Your task to perform on an android device: move a message to another label in the gmail app Image 0: 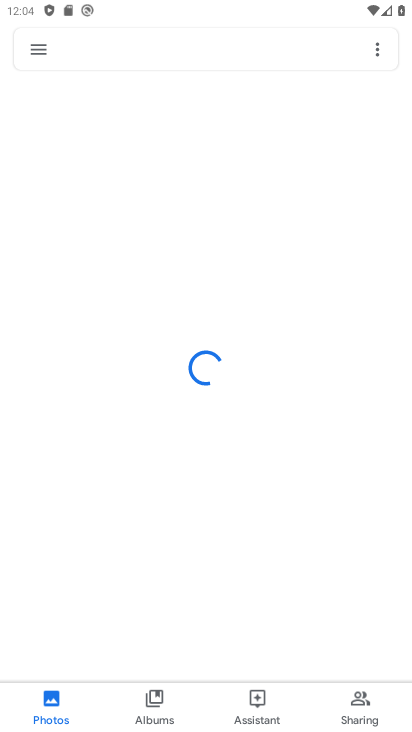
Step 0: press home button
Your task to perform on an android device: move a message to another label in the gmail app Image 1: 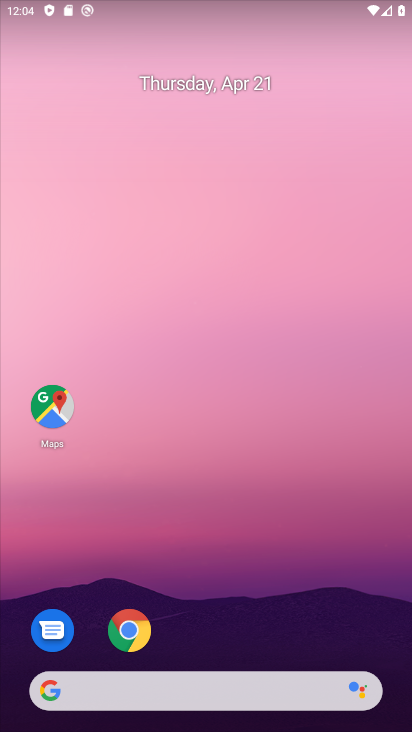
Step 1: drag from (205, 381) to (176, 111)
Your task to perform on an android device: move a message to another label in the gmail app Image 2: 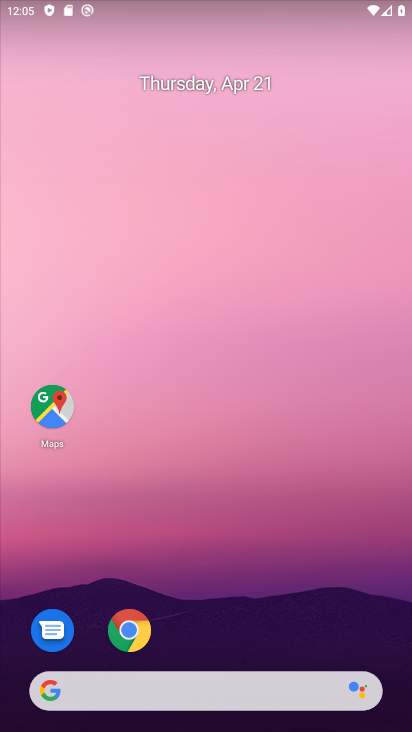
Step 2: click (275, 101)
Your task to perform on an android device: move a message to another label in the gmail app Image 3: 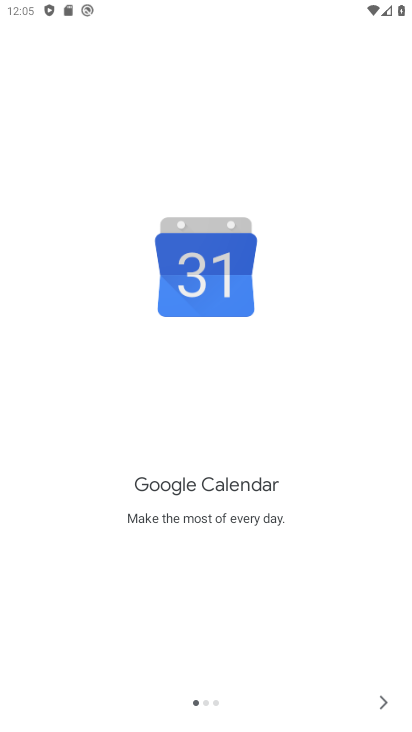
Step 3: click (388, 705)
Your task to perform on an android device: move a message to another label in the gmail app Image 4: 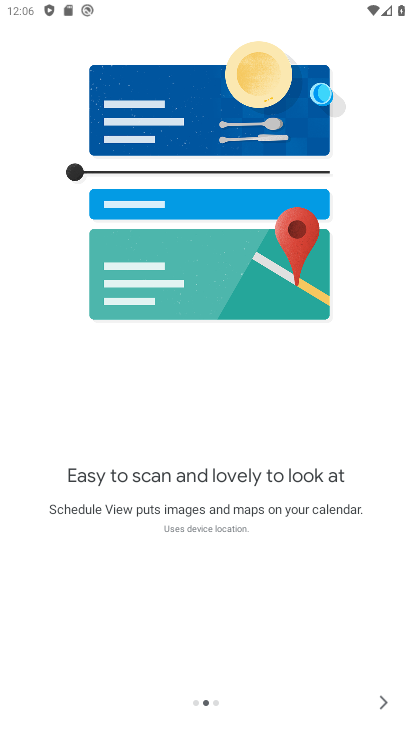
Step 4: click (381, 699)
Your task to perform on an android device: move a message to another label in the gmail app Image 5: 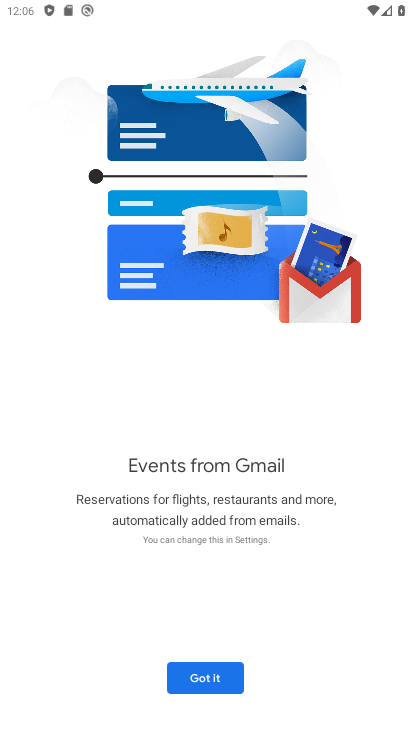
Step 5: click (197, 681)
Your task to perform on an android device: move a message to another label in the gmail app Image 6: 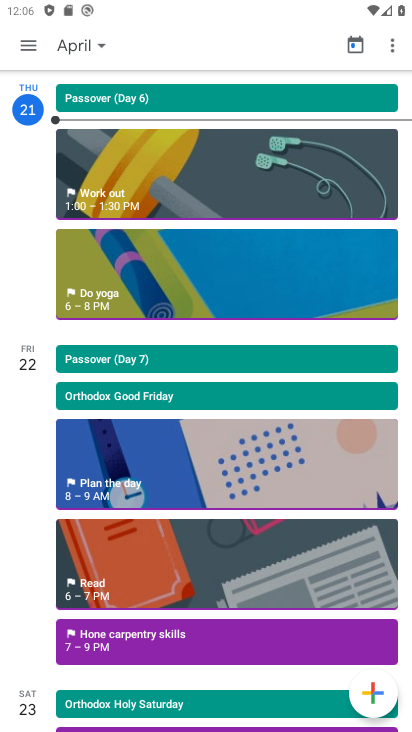
Step 6: press home button
Your task to perform on an android device: move a message to another label in the gmail app Image 7: 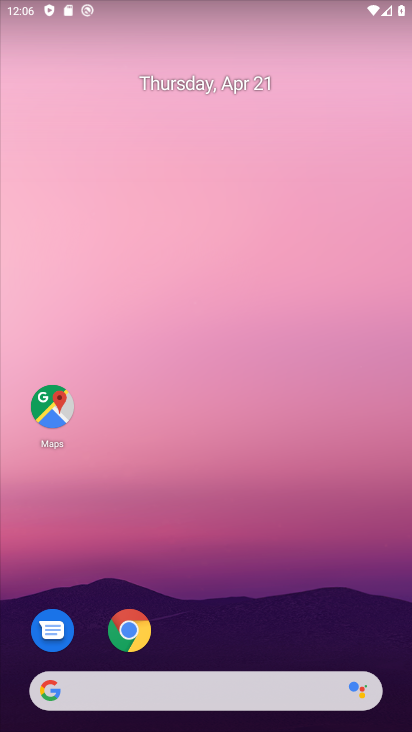
Step 7: drag from (220, 599) to (207, 157)
Your task to perform on an android device: move a message to another label in the gmail app Image 8: 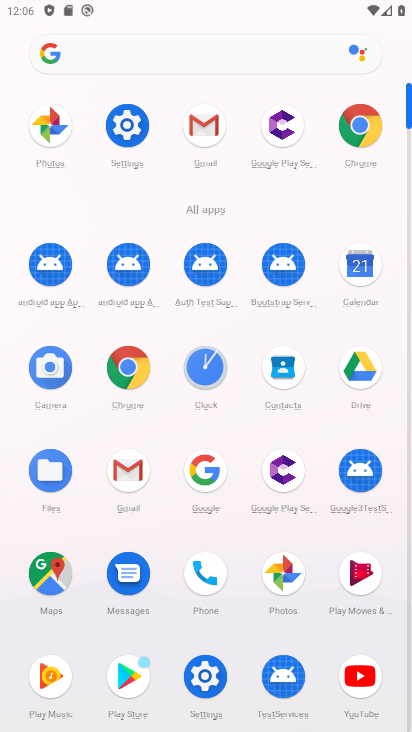
Step 8: click (201, 138)
Your task to perform on an android device: move a message to another label in the gmail app Image 9: 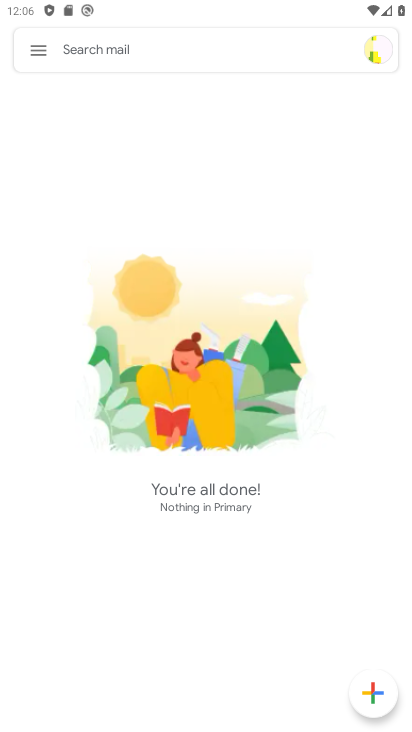
Step 9: click (42, 54)
Your task to perform on an android device: move a message to another label in the gmail app Image 10: 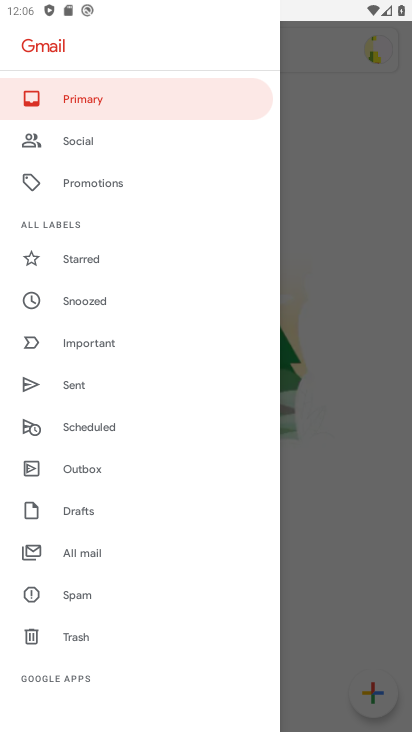
Step 10: click (91, 559)
Your task to perform on an android device: move a message to another label in the gmail app Image 11: 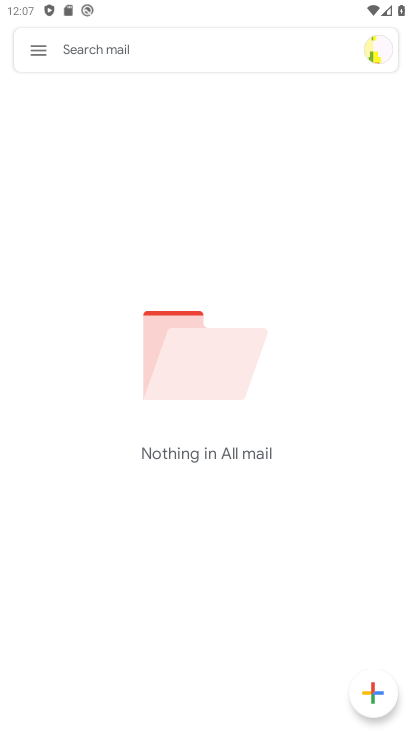
Step 11: task complete